Your task to perform on an android device: all mails in gmail Image 0: 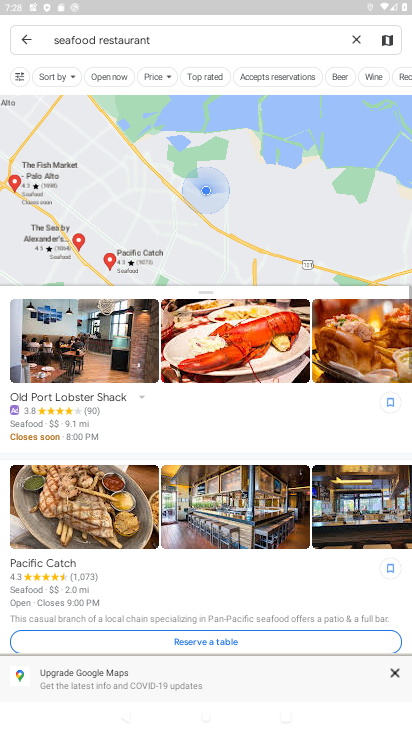
Step 0: press home button
Your task to perform on an android device: all mails in gmail Image 1: 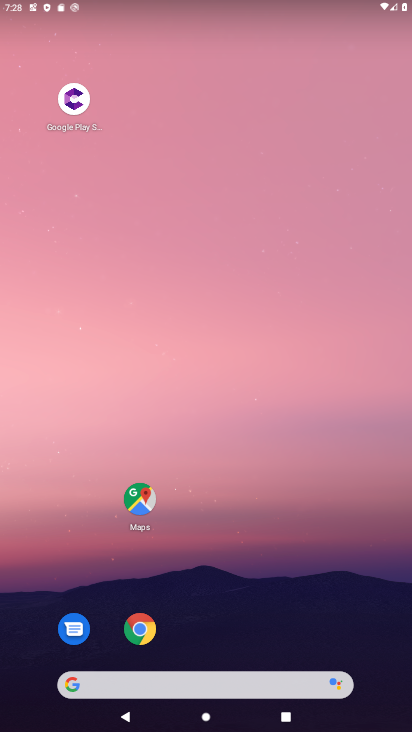
Step 1: drag from (390, 682) to (331, 80)
Your task to perform on an android device: all mails in gmail Image 2: 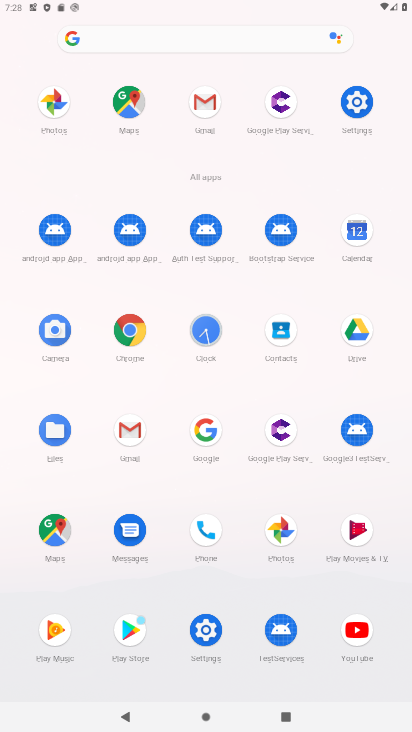
Step 2: drag from (127, 429) to (218, 509)
Your task to perform on an android device: all mails in gmail Image 3: 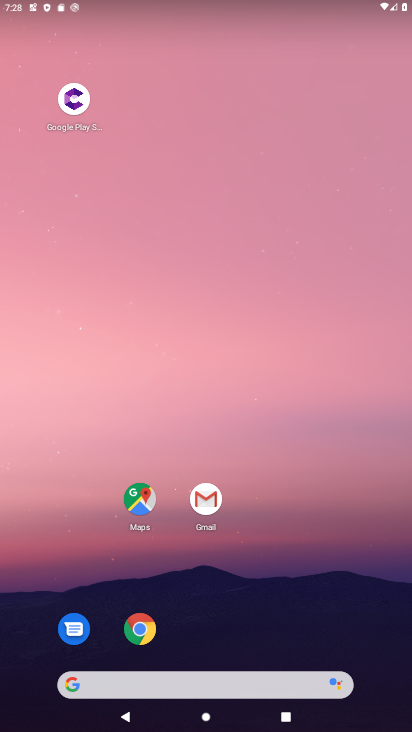
Step 3: click (205, 490)
Your task to perform on an android device: all mails in gmail Image 4: 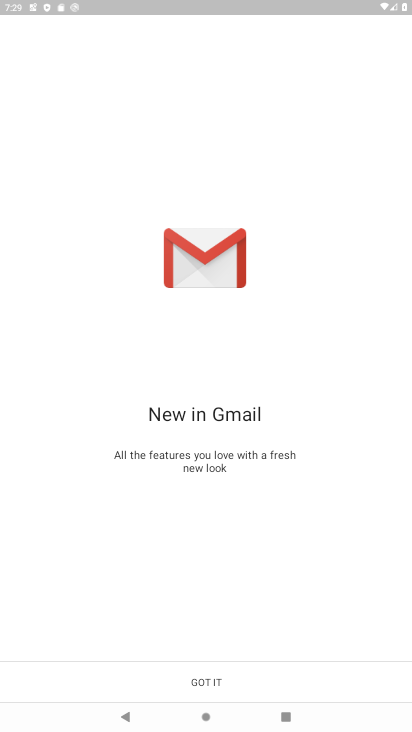
Step 4: click (222, 686)
Your task to perform on an android device: all mails in gmail Image 5: 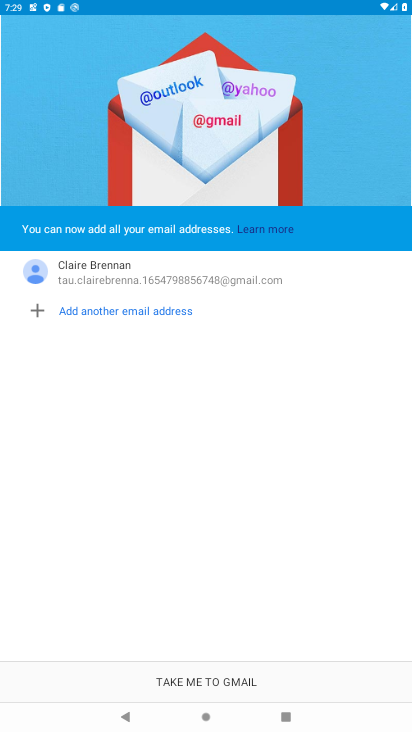
Step 5: click (222, 685)
Your task to perform on an android device: all mails in gmail Image 6: 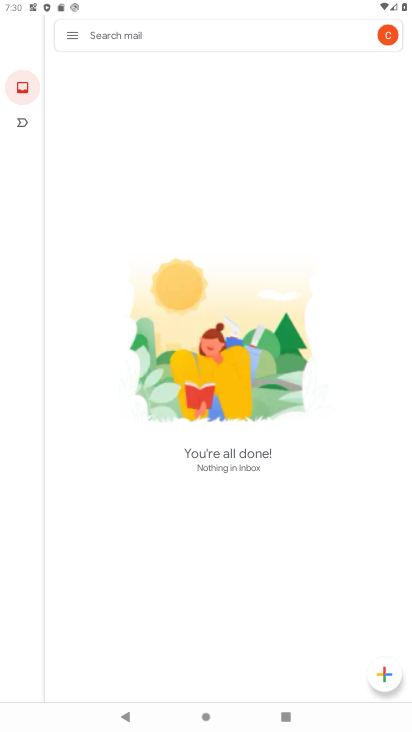
Step 6: task complete